Your task to perform on an android device: check out phone information Image 0: 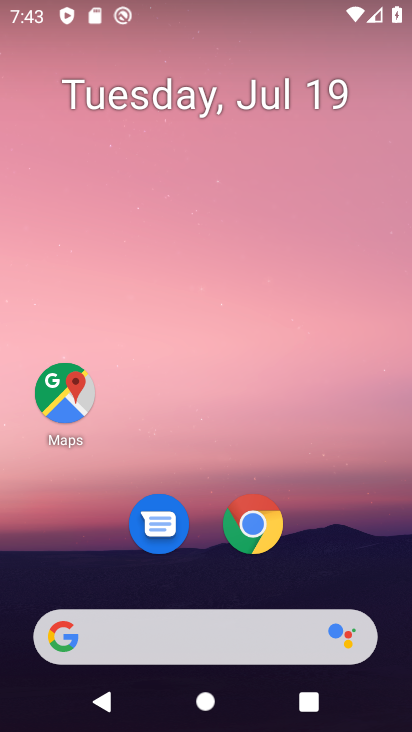
Step 0: drag from (313, 549) to (312, 5)
Your task to perform on an android device: check out phone information Image 1: 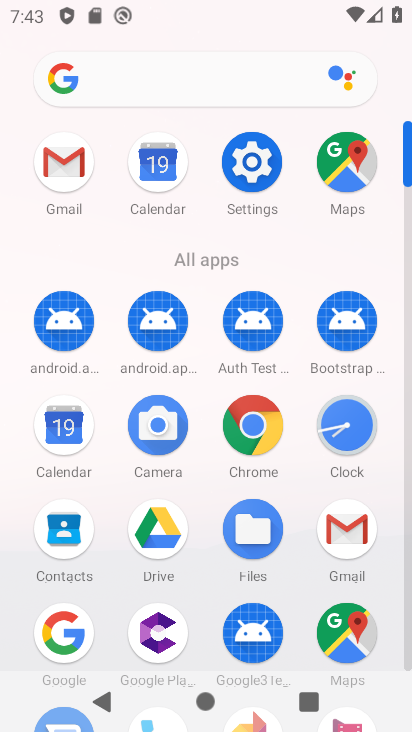
Step 1: drag from (202, 567) to (254, 203)
Your task to perform on an android device: check out phone information Image 2: 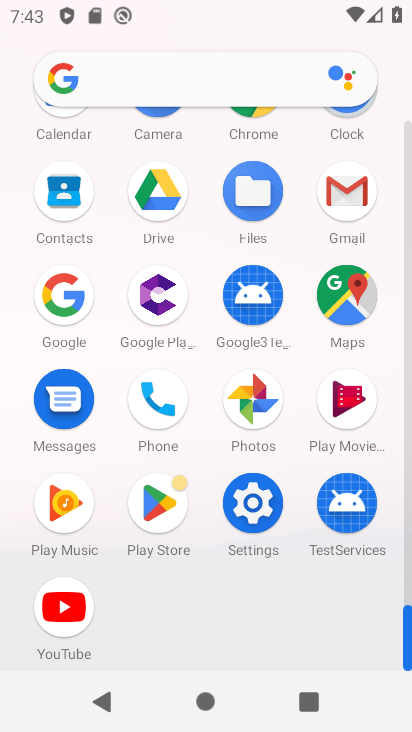
Step 2: click (161, 395)
Your task to perform on an android device: check out phone information Image 3: 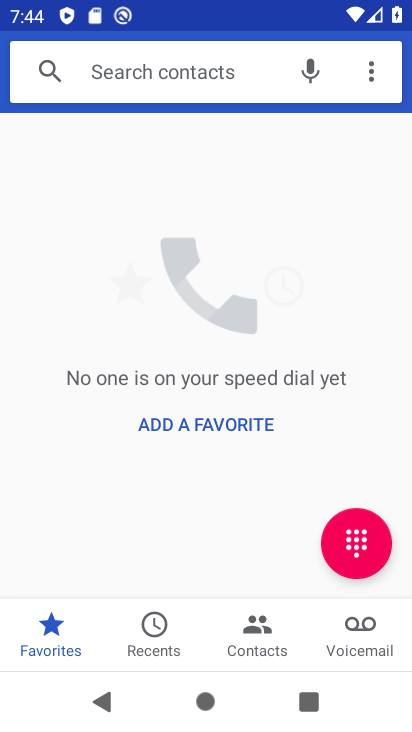
Step 3: click (369, 70)
Your task to perform on an android device: check out phone information Image 4: 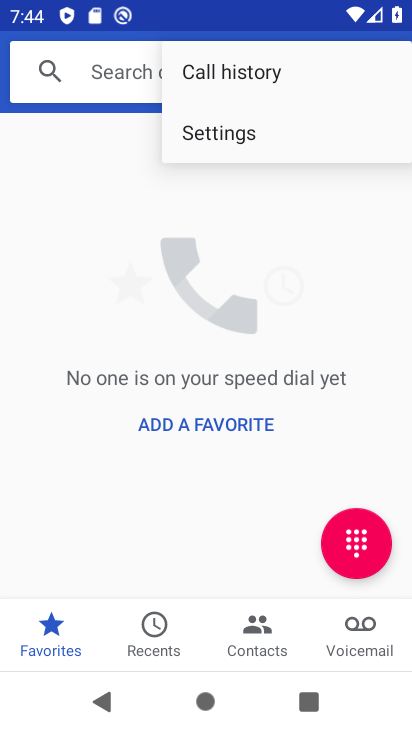
Step 4: click (261, 135)
Your task to perform on an android device: check out phone information Image 5: 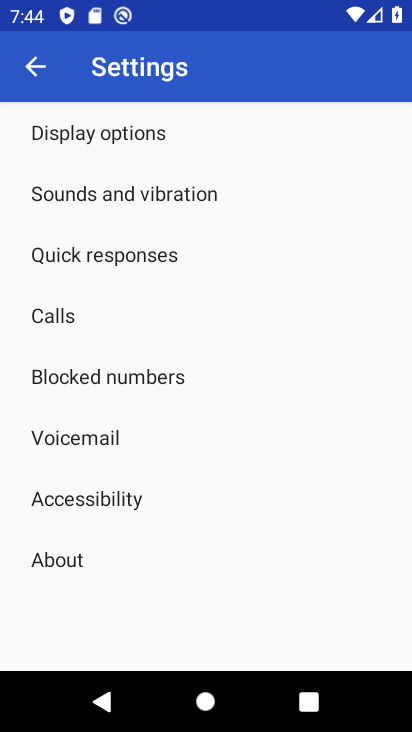
Step 5: click (62, 559)
Your task to perform on an android device: check out phone information Image 6: 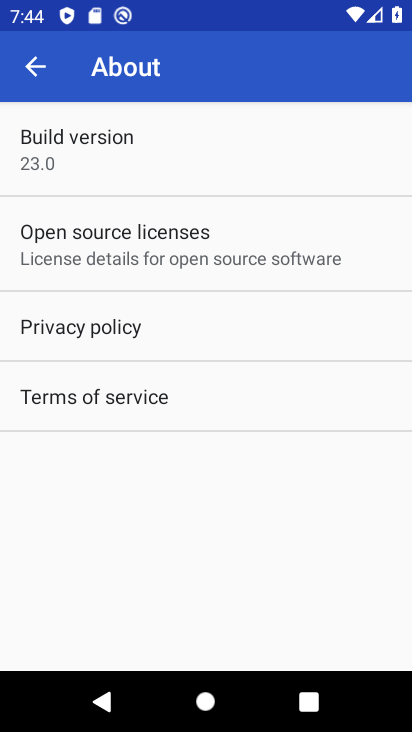
Step 6: task complete